Your task to perform on an android device: change the clock display to show seconds Image 0: 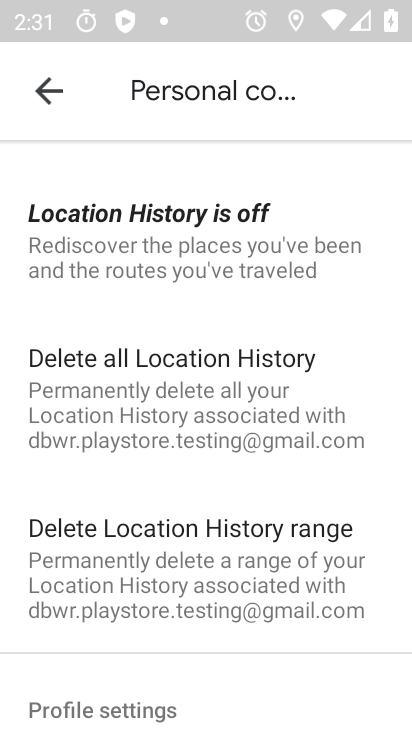
Step 0: press home button
Your task to perform on an android device: change the clock display to show seconds Image 1: 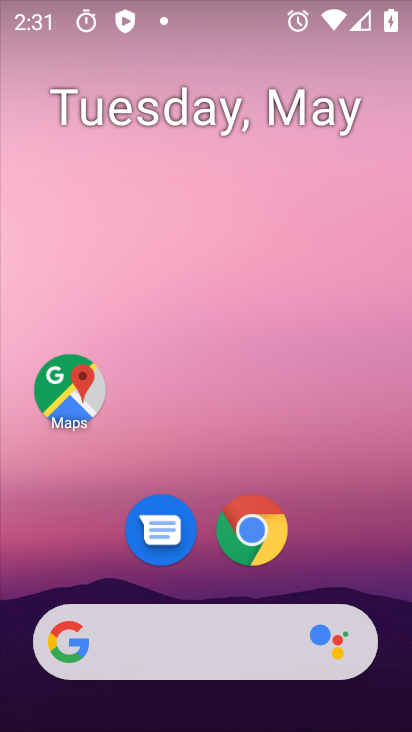
Step 1: drag from (218, 596) to (196, 22)
Your task to perform on an android device: change the clock display to show seconds Image 2: 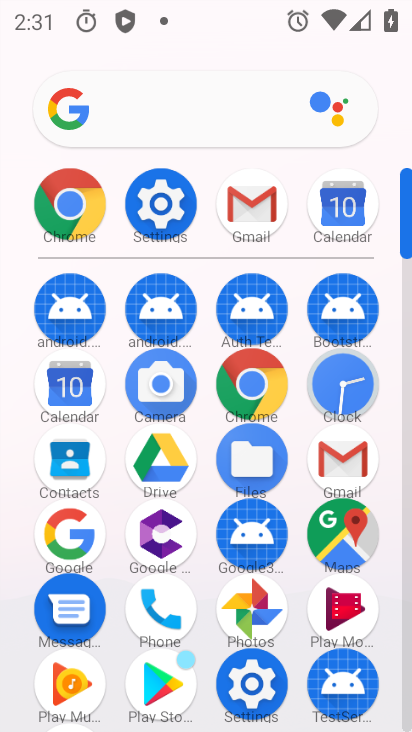
Step 2: click (340, 381)
Your task to perform on an android device: change the clock display to show seconds Image 3: 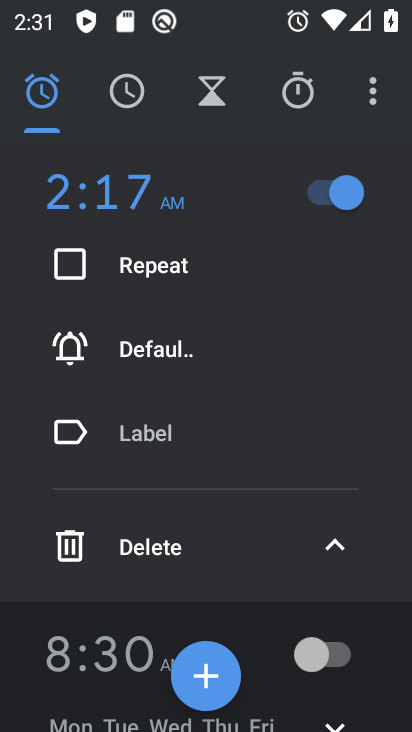
Step 3: click (363, 95)
Your task to perform on an android device: change the clock display to show seconds Image 4: 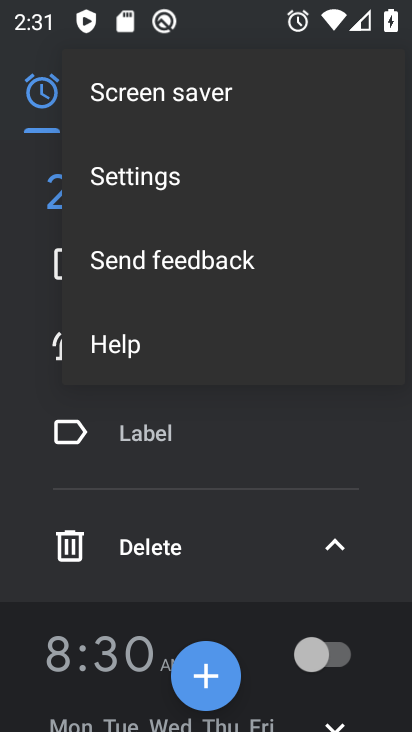
Step 4: click (123, 175)
Your task to perform on an android device: change the clock display to show seconds Image 5: 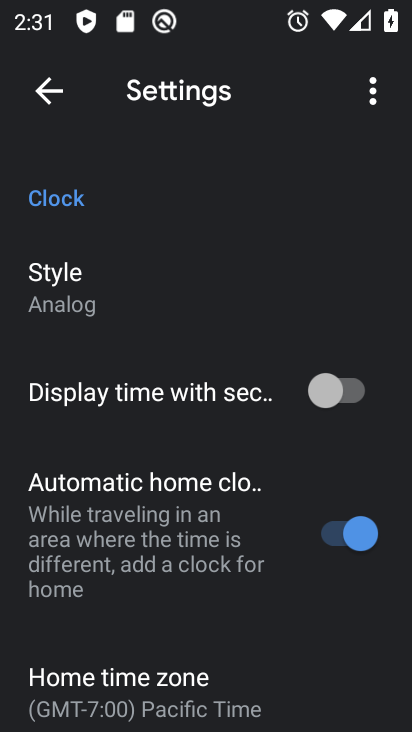
Step 5: click (341, 381)
Your task to perform on an android device: change the clock display to show seconds Image 6: 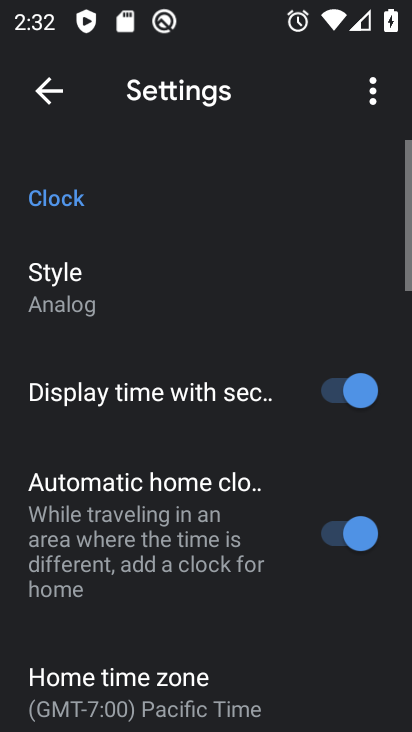
Step 6: task complete